Your task to perform on an android device: When is my next meeting? Image 0: 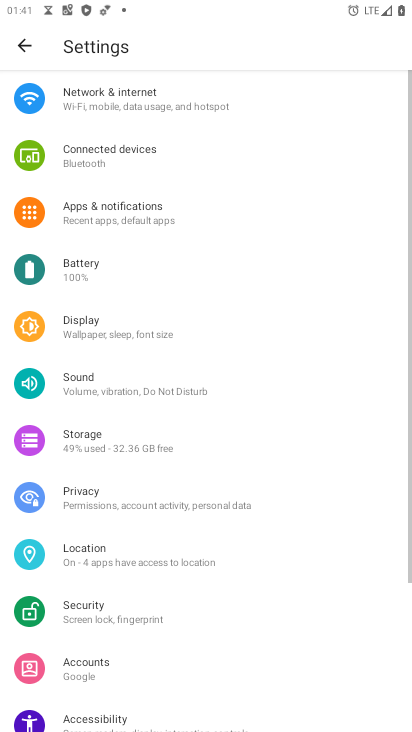
Step 0: press home button
Your task to perform on an android device: When is my next meeting? Image 1: 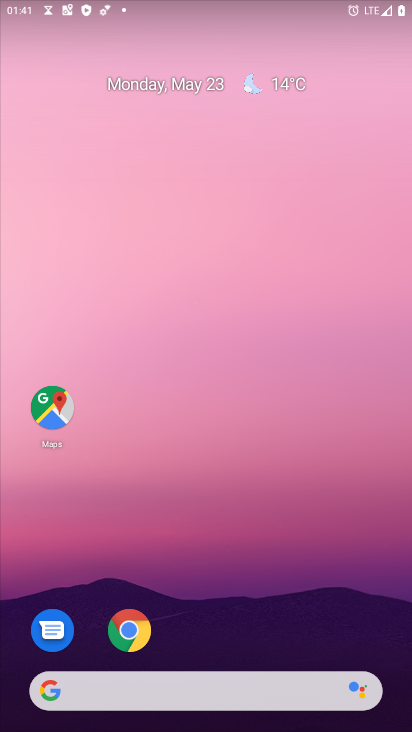
Step 1: drag from (277, 614) to (163, 13)
Your task to perform on an android device: When is my next meeting? Image 2: 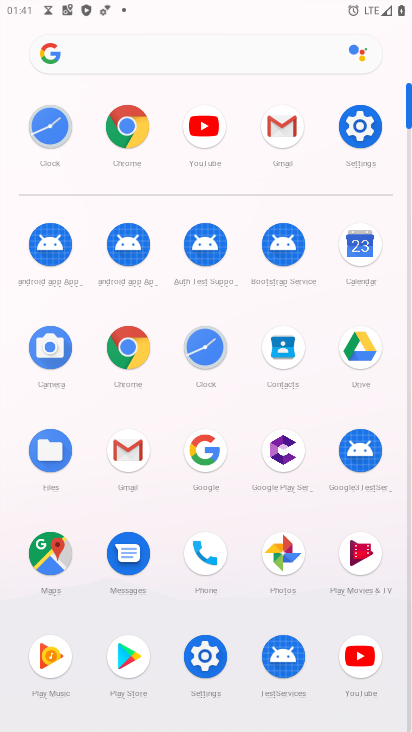
Step 2: click (357, 248)
Your task to perform on an android device: When is my next meeting? Image 3: 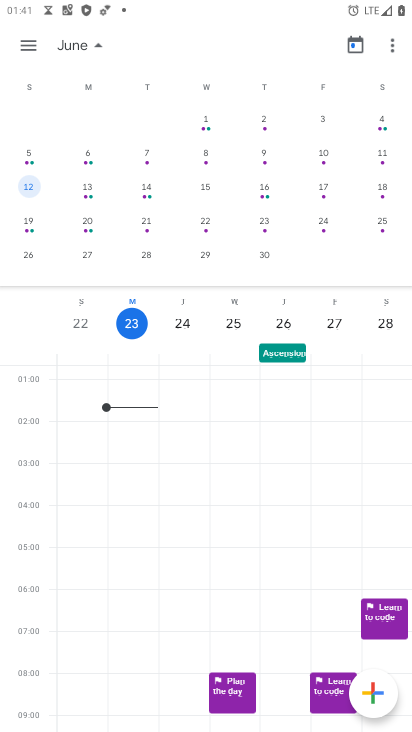
Step 3: click (92, 37)
Your task to perform on an android device: When is my next meeting? Image 4: 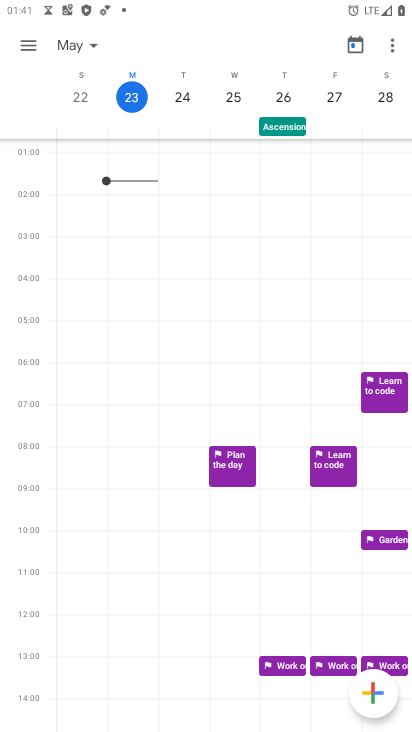
Step 4: click (95, 45)
Your task to perform on an android device: When is my next meeting? Image 5: 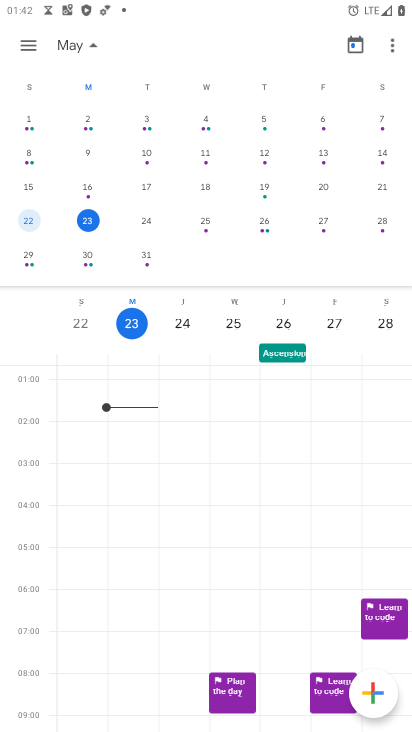
Step 5: drag from (21, 576) to (2, 255)
Your task to perform on an android device: When is my next meeting? Image 6: 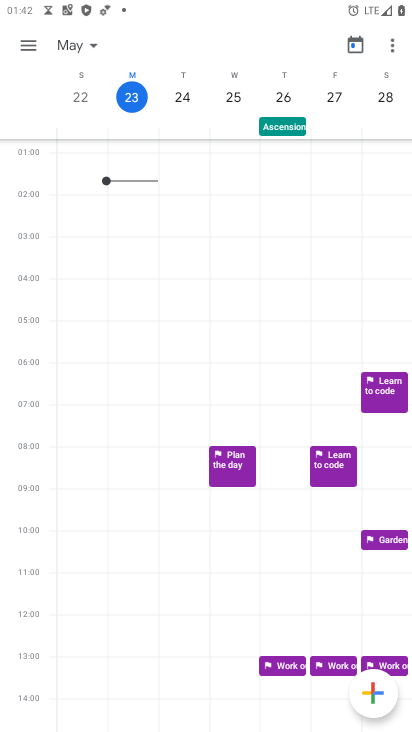
Step 6: click (27, 47)
Your task to perform on an android device: When is my next meeting? Image 7: 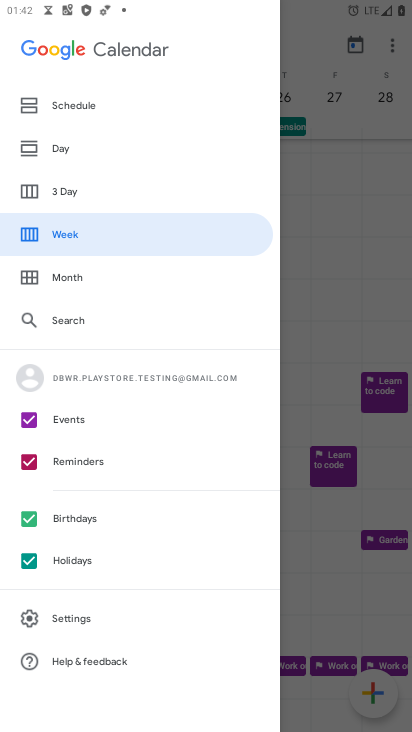
Step 7: click (88, 232)
Your task to perform on an android device: When is my next meeting? Image 8: 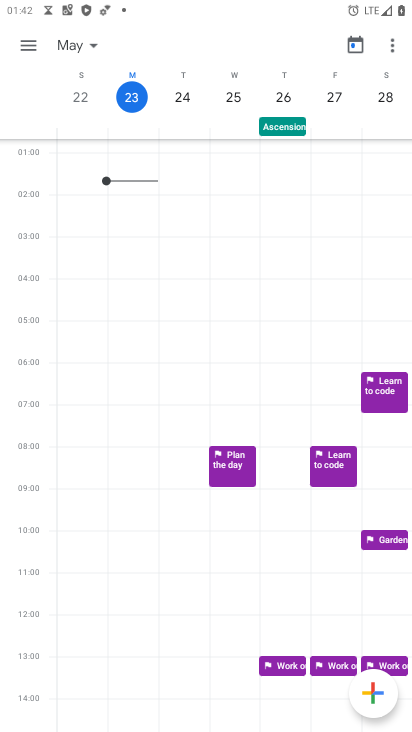
Step 8: task complete